Your task to perform on an android device: Open calendar and show me the fourth week of next month Image 0: 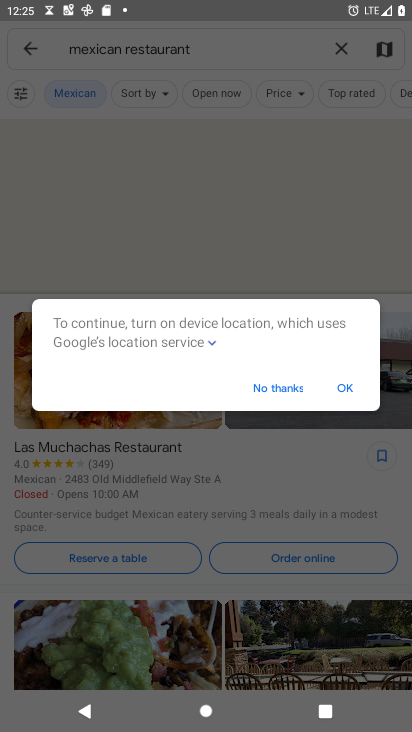
Step 0: press home button
Your task to perform on an android device: Open calendar and show me the fourth week of next month Image 1: 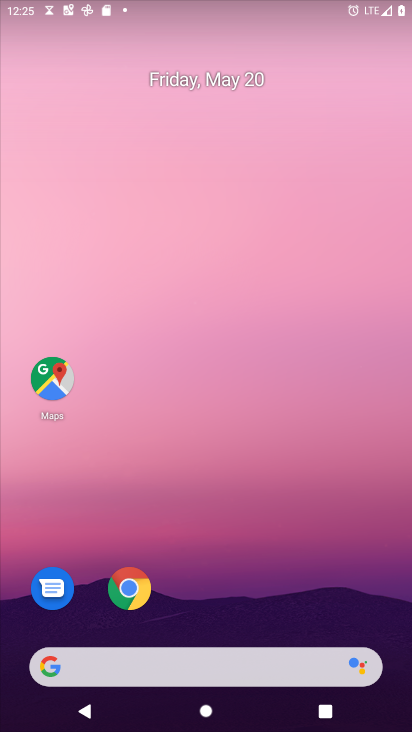
Step 1: drag from (294, 554) to (220, 0)
Your task to perform on an android device: Open calendar and show me the fourth week of next month Image 2: 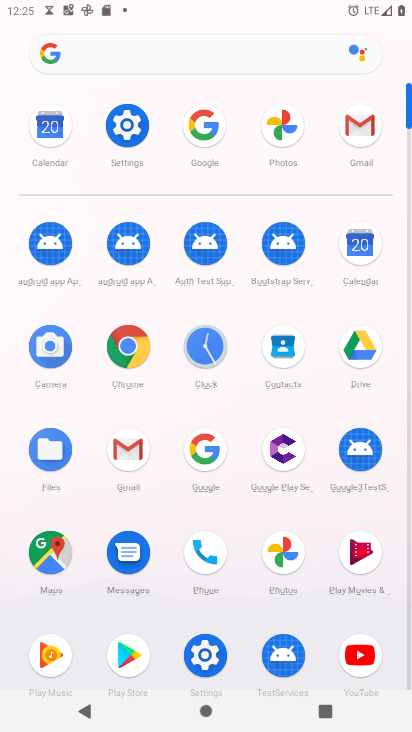
Step 2: click (57, 134)
Your task to perform on an android device: Open calendar and show me the fourth week of next month Image 3: 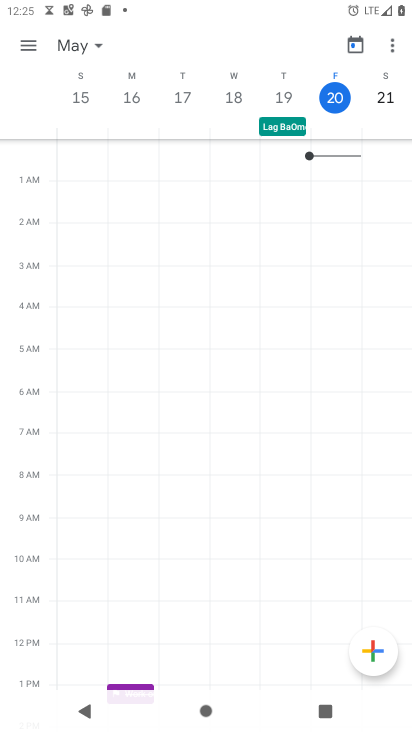
Step 3: click (91, 32)
Your task to perform on an android device: Open calendar and show me the fourth week of next month Image 4: 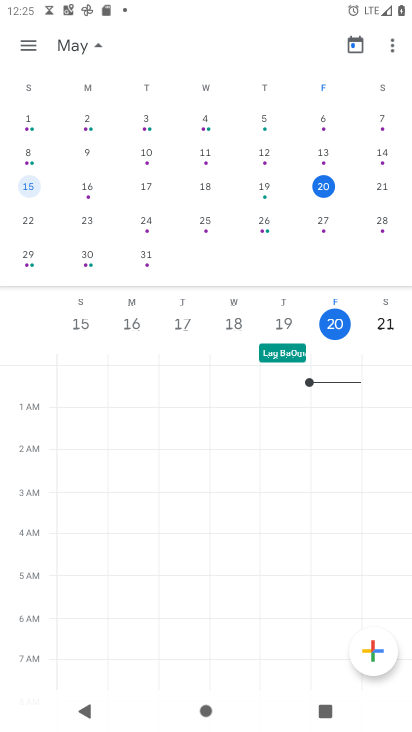
Step 4: drag from (369, 215) to (6, 154)
Your task to perform on an android device: Open calendar and show me the fourth week of next month Image 5: 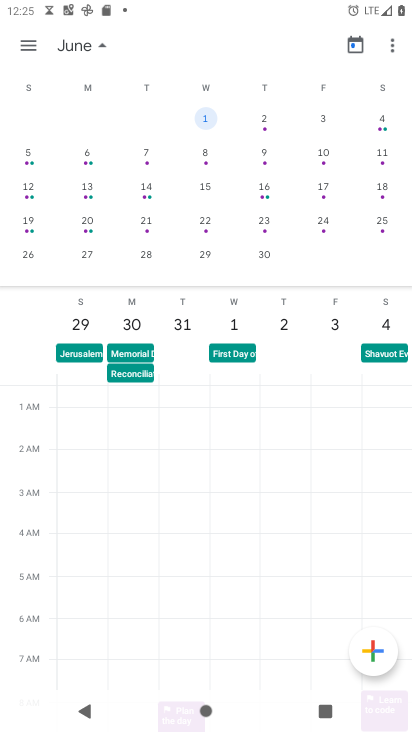
Step 5: click (35, 222)
Your task to perform on an android device: Open calendar and show me the fourth week of next month Image 6: 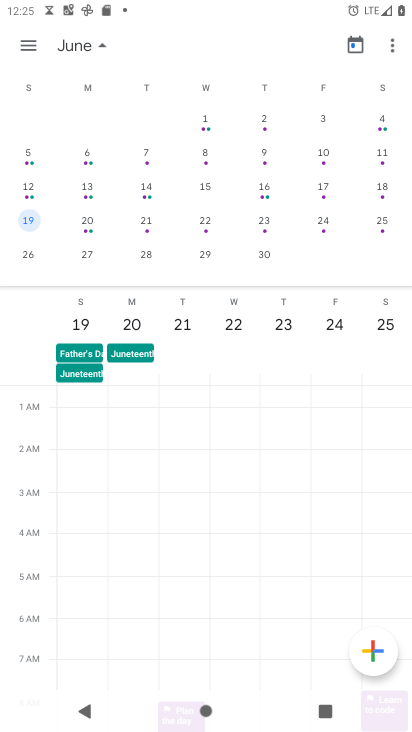
Step 6: task complete